Your task to perform on an android device: Open Amazon Image 0: 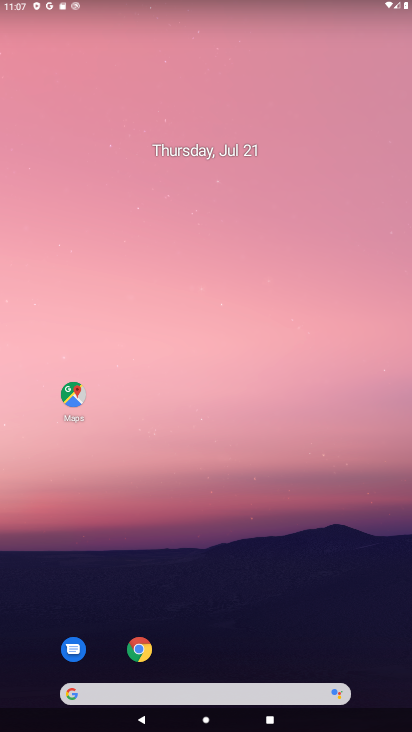
Step 0: click (142, 652)
Your task to perform on an android device: Open Amazon Image 1: 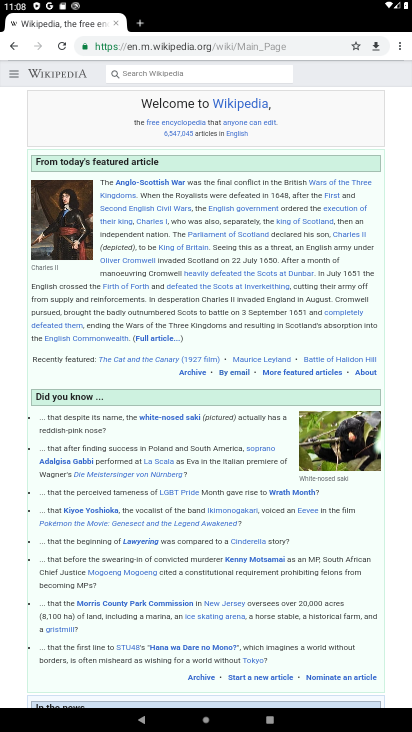
Step 1: click (400, 47)
Your task to perform on an android device: Open Amazon Image 2: 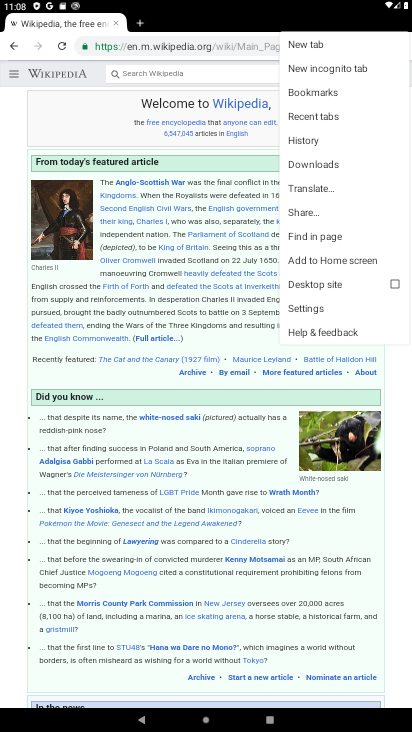
Step 2: click (300, 44)
Your task to perform on an android device: Open Amazon Image 3: 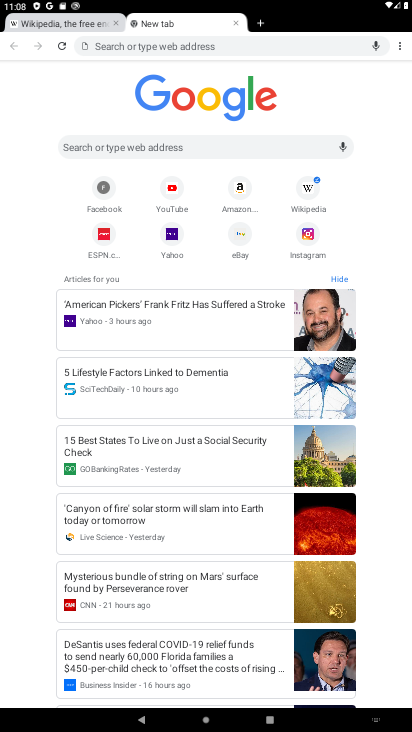
Step 3: click (239, 187)
Your task to perform on an android device: Open Amazon Image 4: 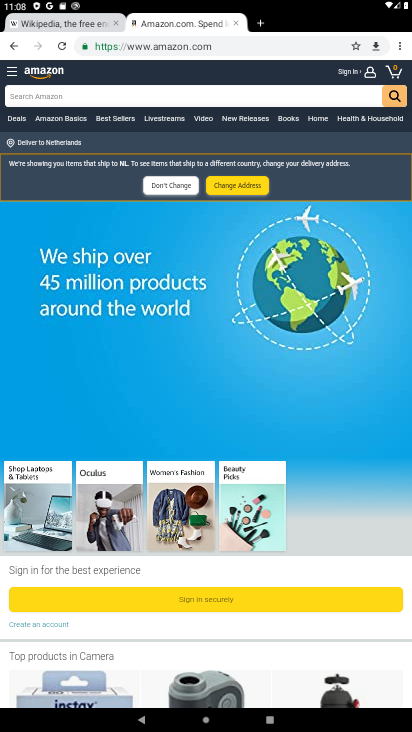
Step 4: task complete